Your task to perform on an android device: move an email to a new category in the gmail app Image 0: 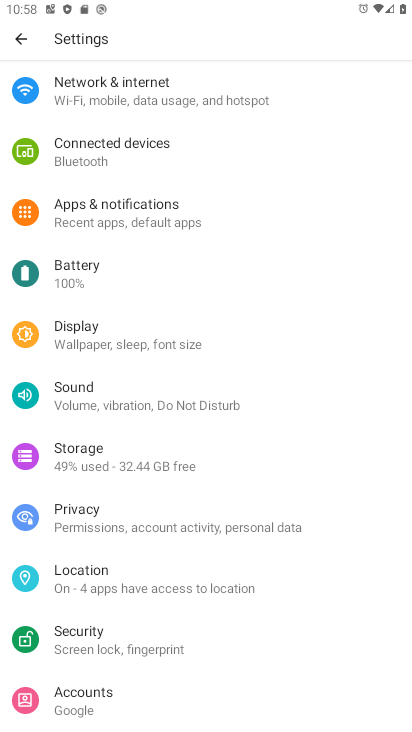
Step 0: press home button
Your task to perform on an android device: move an email to a new category in the gmail app Image 1: 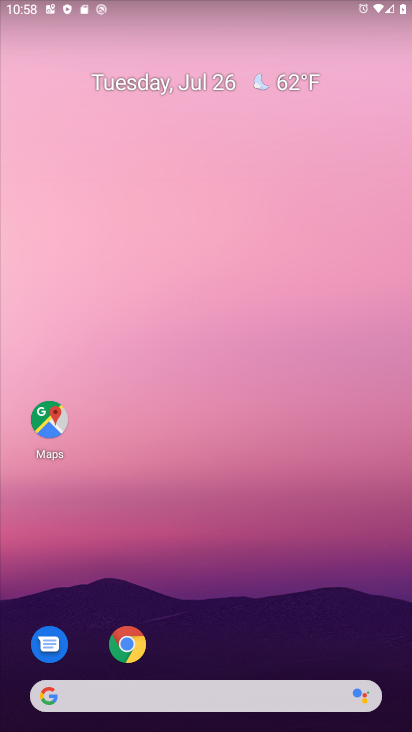
Step 1: drag from (269, 612) to (271, 248)
Your task to perform on an android device: move an email to a new category in the gmail app Image 2: 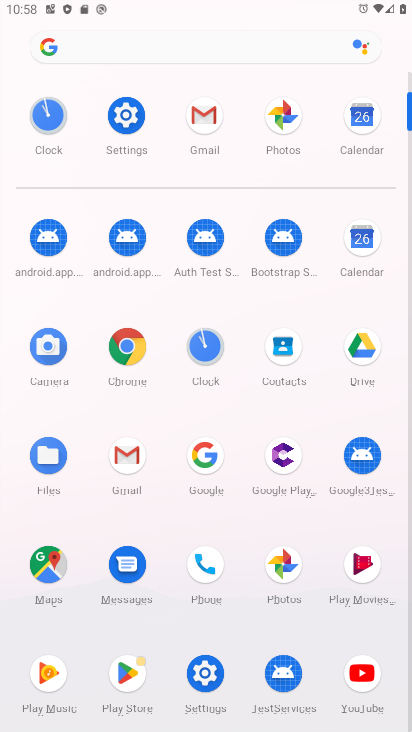
Step 2: click (122, 450)
Your task to perform on an android device: move an email to a new category in the gmail app Image 3: 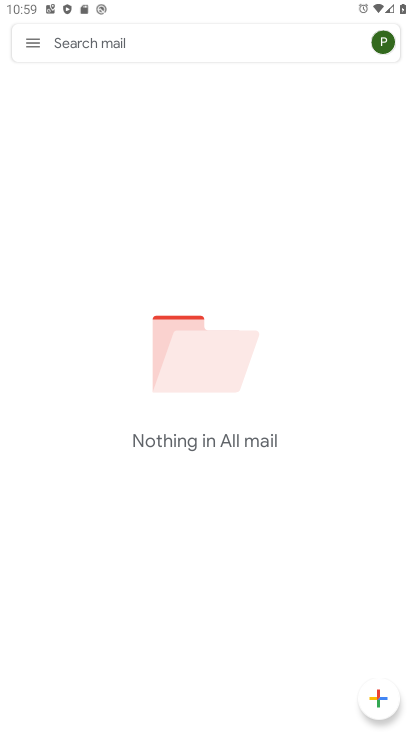
Step 3: task complete